Your task to perform on an android device: Search for "razer kraken" on newegg, select the first entry, and add it to the cart. Image 0: 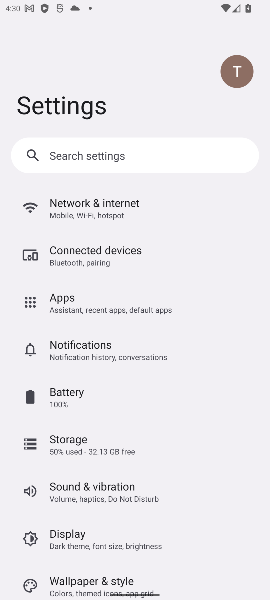
Step 0: press home button
Your task to perform on an android device: Search for "razer kraken" on newegg, select the first entry, and add it to the cart. Image 1: 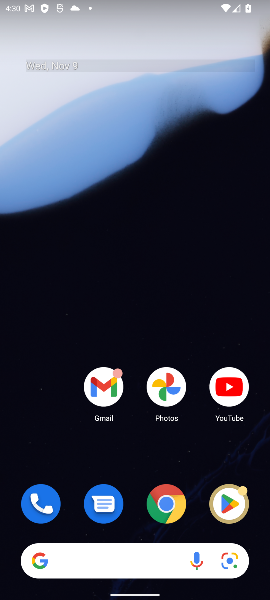
Step 1: click (127, 564)
Your task to perform on an android device: Search for "razer kraken" on newegg, select the first entry, and add it to the cart. Image 2: 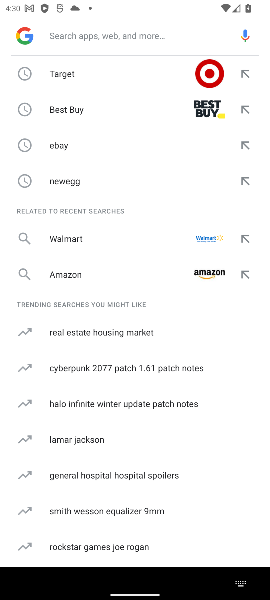
Step 2: click (74, 176)
Your task to perform on an android device: Search for "razer kraken" on newegg, select the first entry, and add it to the cart. Image 3: 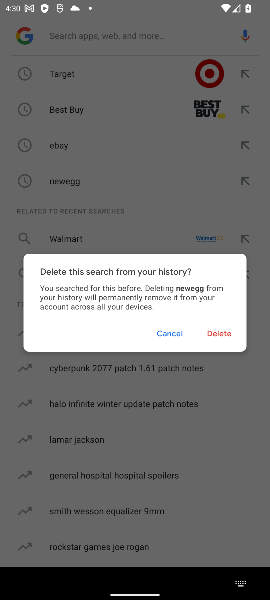
Step 3: click (167, 329)
Your task to perform on an android device: Search for "razer kraken" on newegg, select the first entry, and add it to the cart. Image 4: 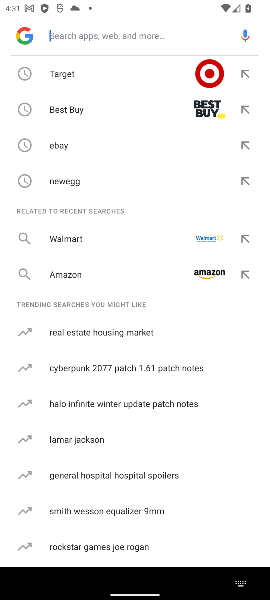
Step 4: click (60, 181)
Your task to perform on an android device: Search for "razer kraken" on newegg, select the first entry, and add it to the cart. Image 5: 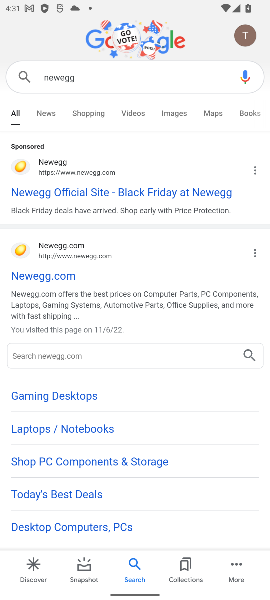
Step 5: click (43, 274)
Your task to perform on an android device: Search for "razer kraken" on newegg, select the first entry, and add it to the cart. Image 6: 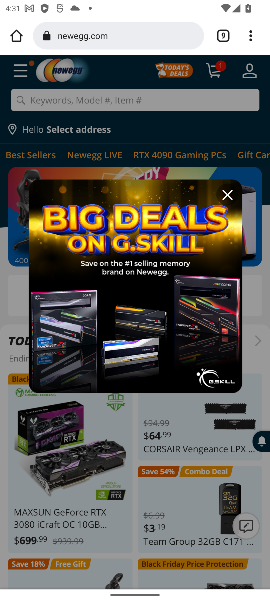
Step 6: click (228, 195)
Your task to perform on an android device: Search for "razer kraken" on newegg, select the first entry, and add it to the cart. Image 7: 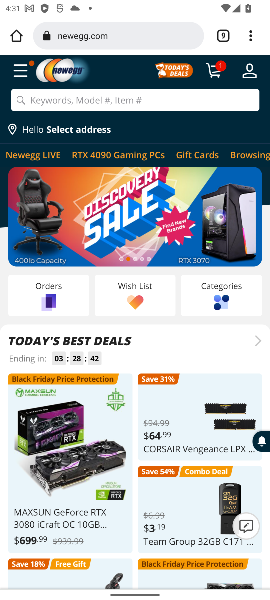
Step 7: click (112, 93)
Your task to perform on an android device: Search for "razer kraken" on newegg, select the first entry, and add it to the cart. Image 8: 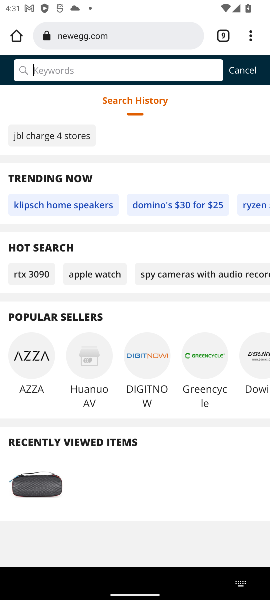
Step 8: type "razer kraken"
Your task to perform on an android device: Search for "razer kraken" on newegg, select the first entry, and add it to the cart. Image 9: 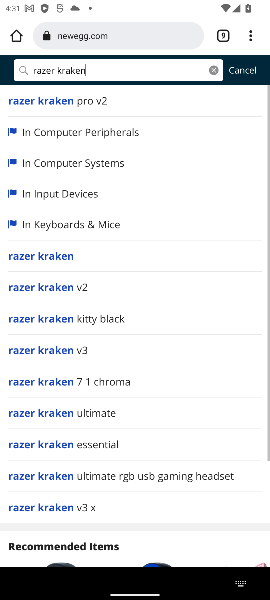
Step 9: click (52, 260)
Your task to perform on an android device: Search for "razer kraken" on newegg, select the first entry, and add it to the cart. Image 10: 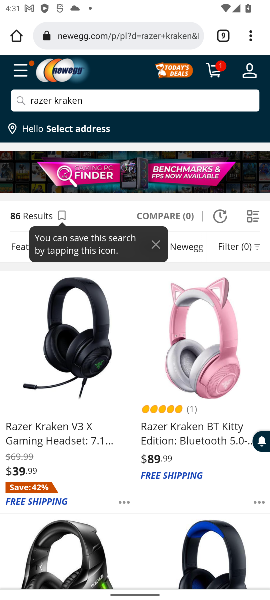
Step 10: click (42, 427)
Your task to perform on an android device: Search for "razer kraken" on newegg, select the first entry, and add it to the cart. Image 11: 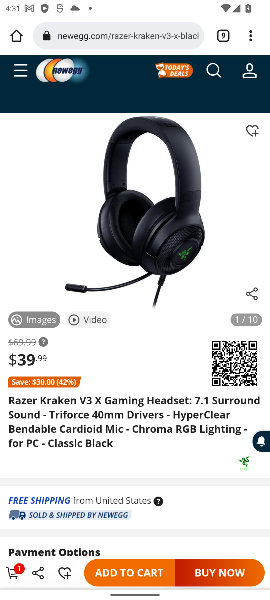
Step 11: click (111, 572)
Your task to perform on an android device: Search for "razer kraken" on newegg, select the first entry, and add it to the cart. Image 12: 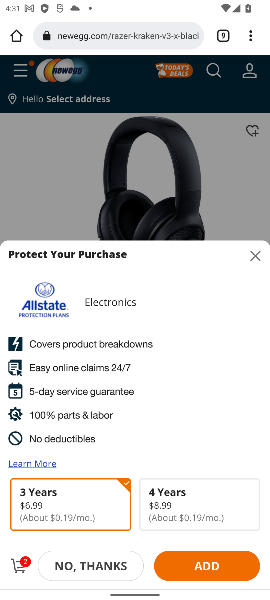
Step 12: task complete